Your task to perform on an android device: Open Wikipedia Image 0: 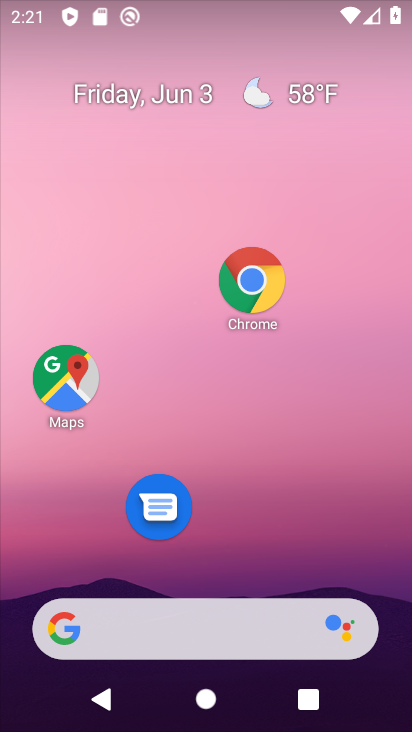
Step 0: click (258, 275)
Your task to perform on an android device: Open Wikipedia Image 1: 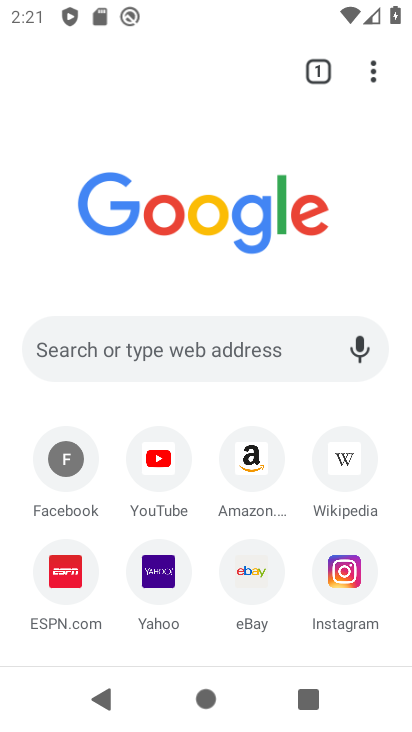
Step 1: click (338, 459)
Your task to perform on an android device: Open Wikipedia Image 2: 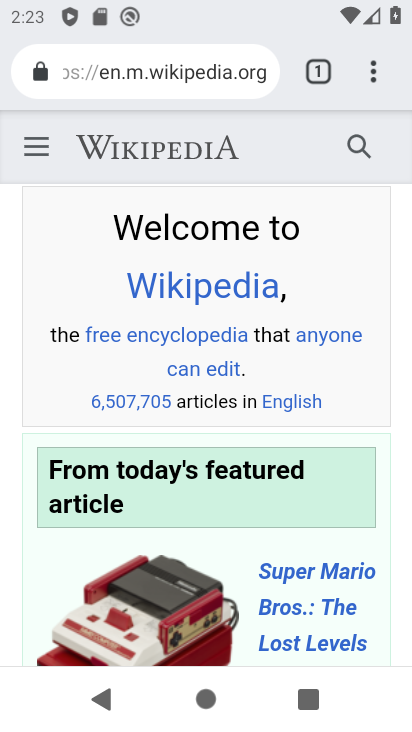
Step 2: task complete